Your task to perform on an android device: turn off location history Image 0: 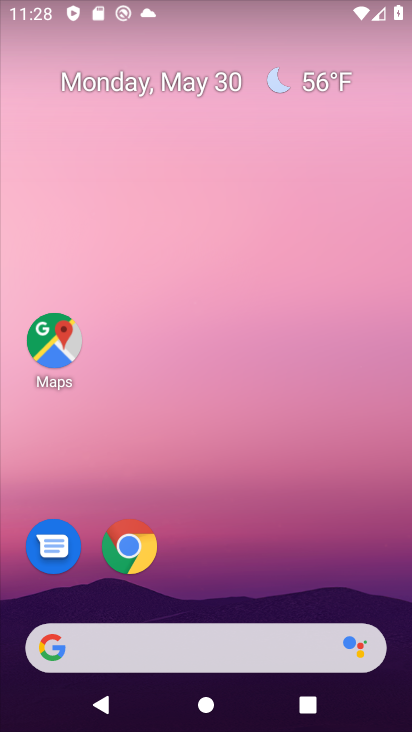
Step 0: drag from (265, 555) to (257, 128)
Your task to perform on an android device: turn off location history Image 1: 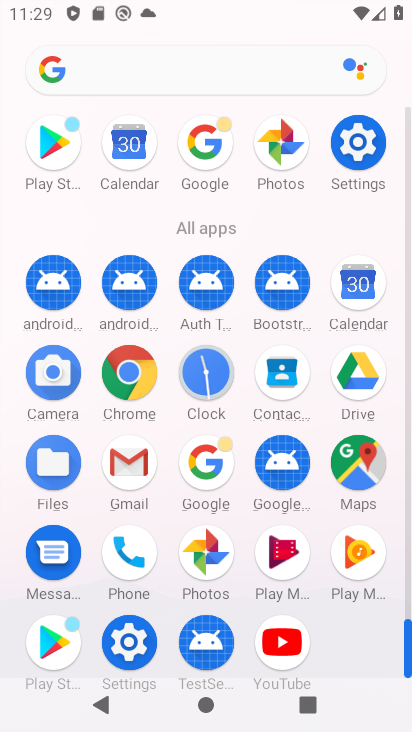
Step 1: click (360, 143)
Your task to perform on an android device: turn off location history Image 2: 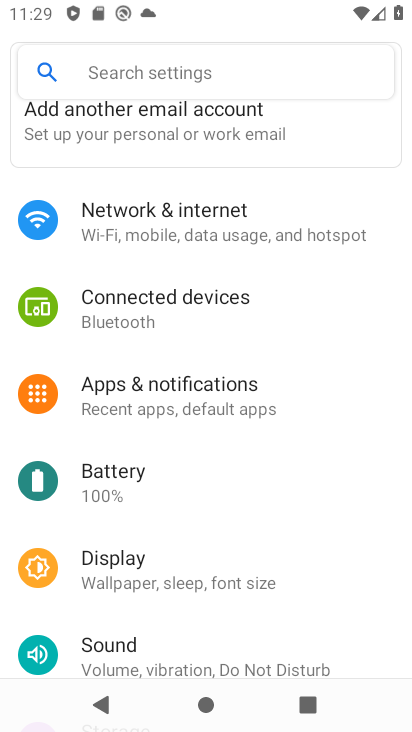
Step 2: drag from (188, 562) to (171, 360)
Your task to perform on an android device: turn off location history Image 3: 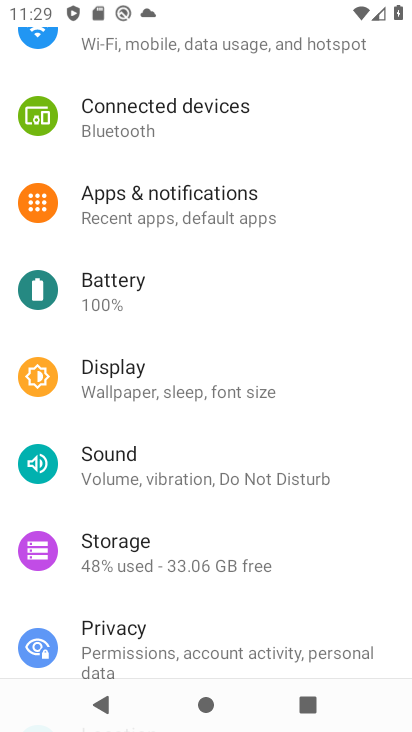
Step 3: drag from (186, 521) to (192, 373)
Your task to perform on an android device: turn off location history Image 4: 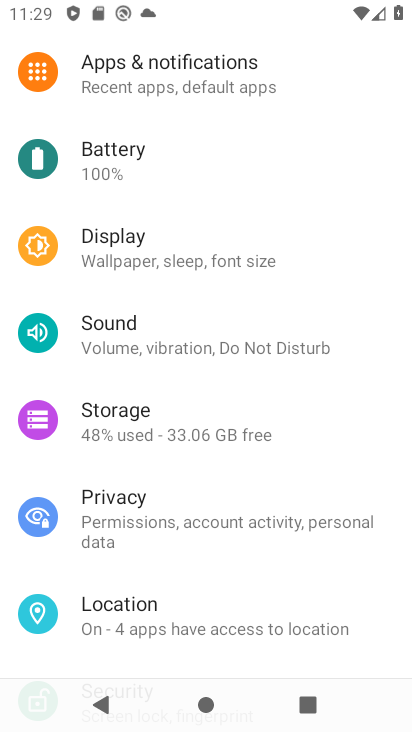
Step 4: drag from (170, 489) to (214, 369)
Your task to perform on an android device: turn off location history Image 5: 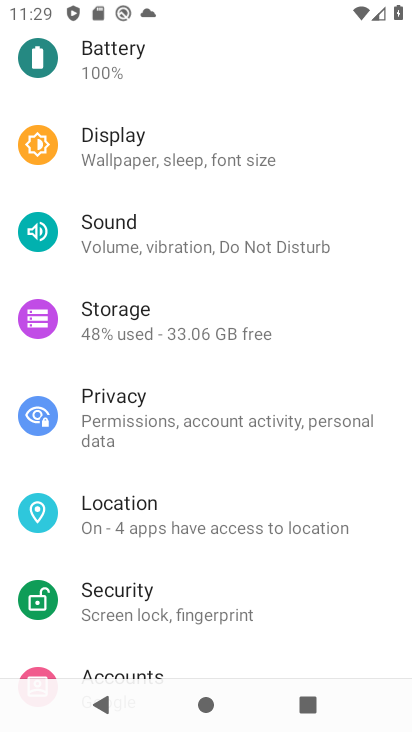
Step 5: click (207, 513)
Your task to perform on an android device: turn off location history Image 6: 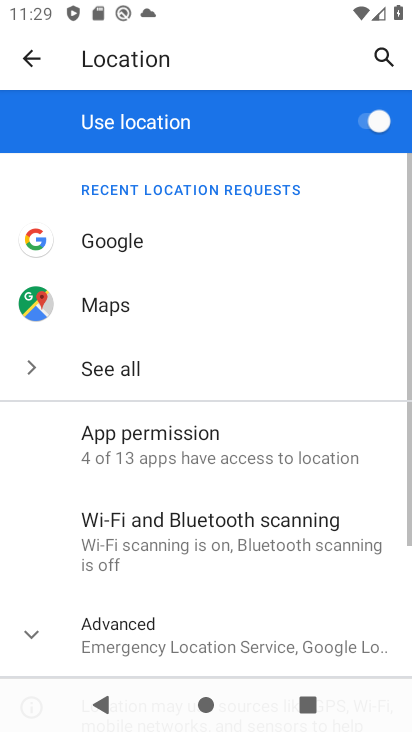
Step 6: drag from (185, 574) to (245, 465)
Your task to perform on an android device: turn off location history Image 7: 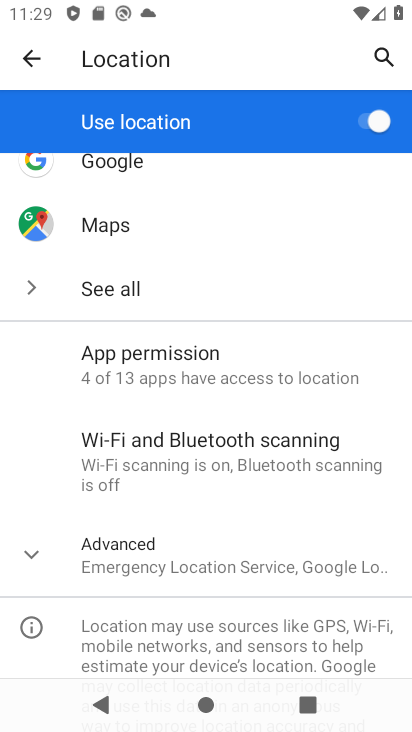
Step 7: click (206, 568)
Your task to perform on an android device: turn off location history Image 8: 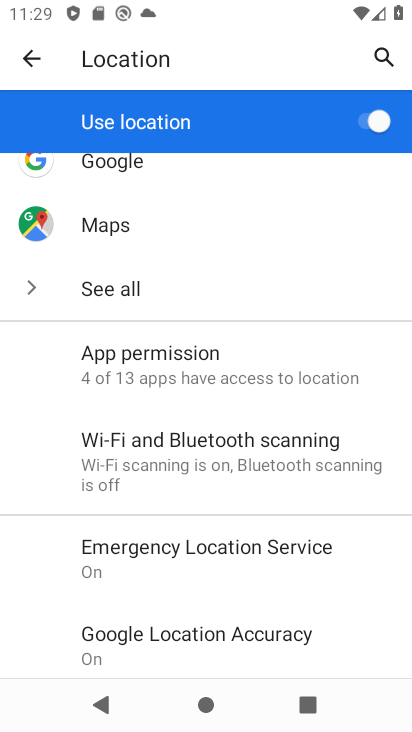
Step 8: drag from (171, 639) to (227, 516)
Your task to perform on an android device: turn off location history Image 9: 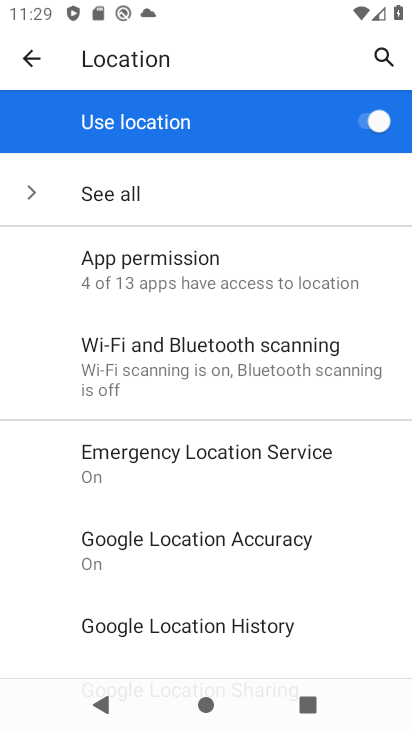
Step 9: drag from (206, 586) to (264, 482)
Your task to perform on an android device: turn off location history Image 10: 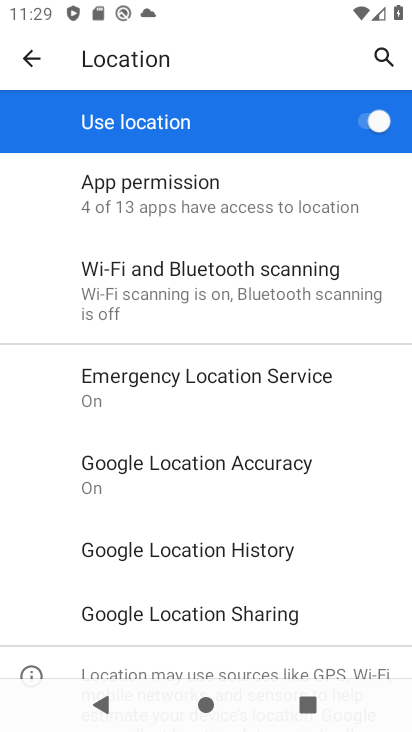
Step 10: click (247, 554)
Your task to perform on an android device: turn off location history Image 11: 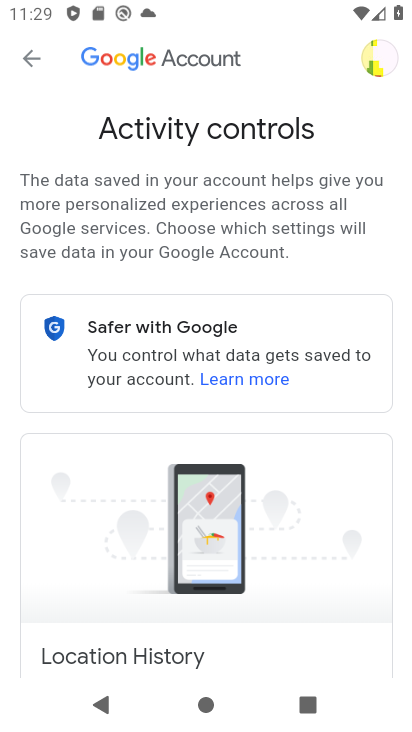
Step 11: drag from (112, 553) to (165, 421)
Your task to perform on an android device: turn off location history Image 12: 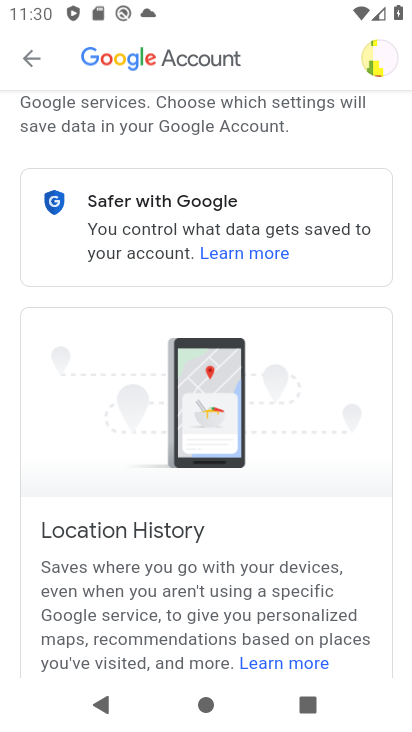
Step 12: drag from (140, 598) to (211, 472)
Your task to perform on an android device: turn off location history Image 13: 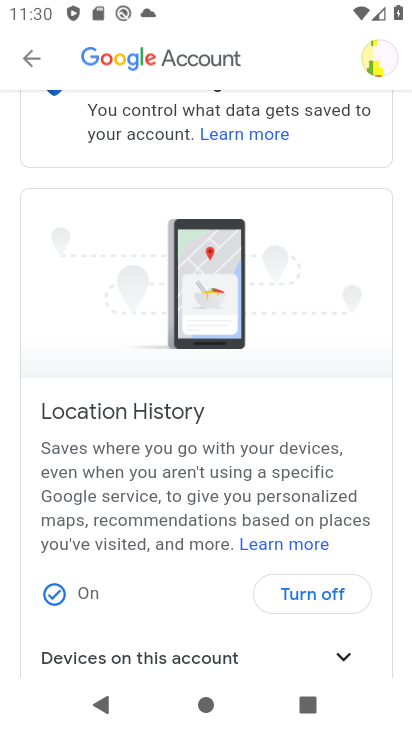
Step 13: click (311, 593)
Your task to perform on an android device: turn off location history Image 14: 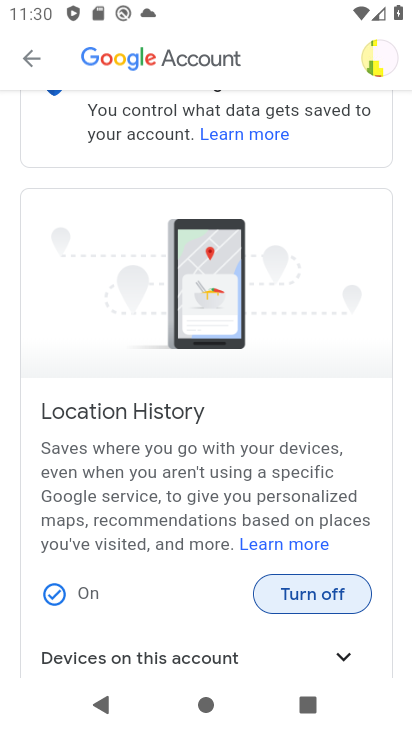
Step 14: click (311, 593)
Your task to perform on an android device: turn off location history Image 15: 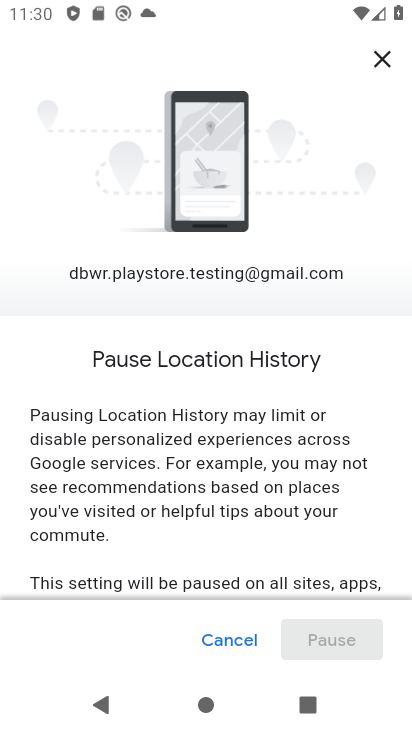
Step 15: drag from (154, 509) to (215, 372)
Your task to perform on an android device: turn off location history Image 16: 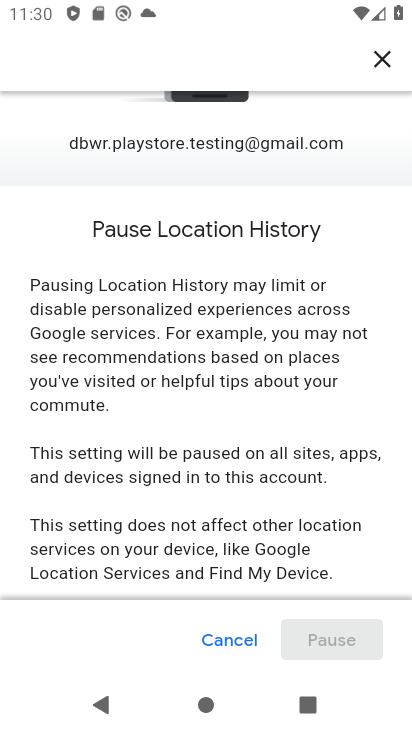
Step 16: drag from (155, 534) to (203, 440)
Your task to perform on an android device: turn off location history Image 17: 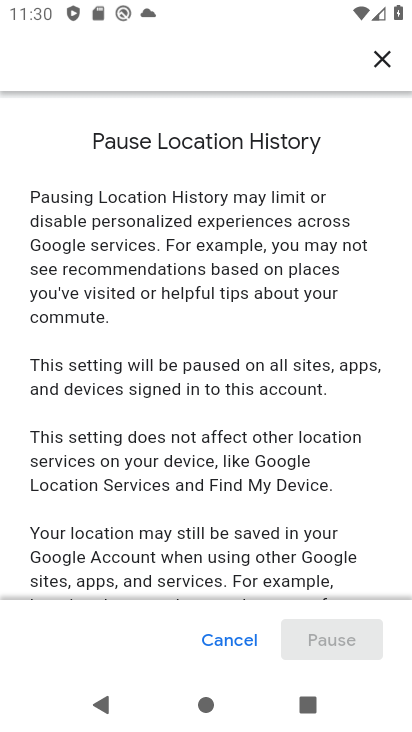
Step 17: drag from (186, 535) to (275, 414)
Your task to perform on an android device: turn off location history Image 18: 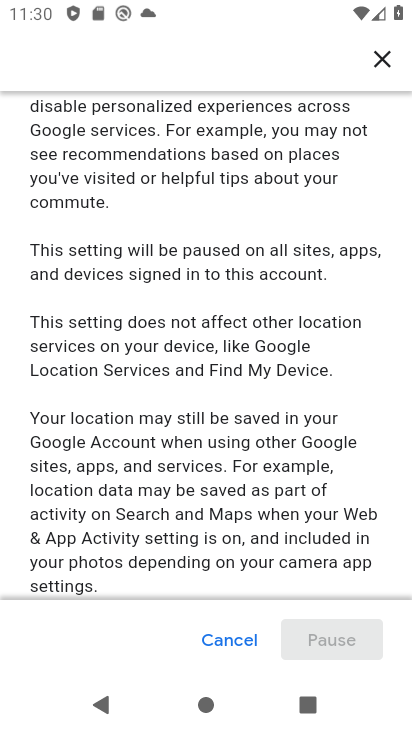
Step 18: drag from (210, 502) to (297, 392)
Your task to perform on an android device: turn off location history Image 19: 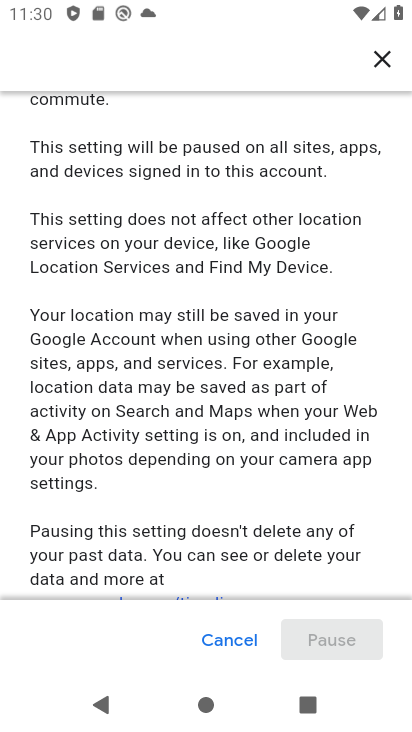
Step 19: drag from (205, 508) to (250, 419)
Your task to perform on an android device: turn off location history Image 20: 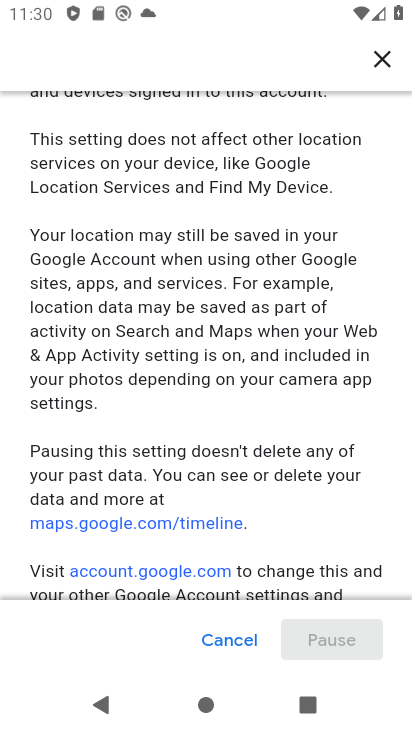
Step 20: drag from (256, 545) to (305, 443)
Your task to perform on an android device: turn off location history Image 21: 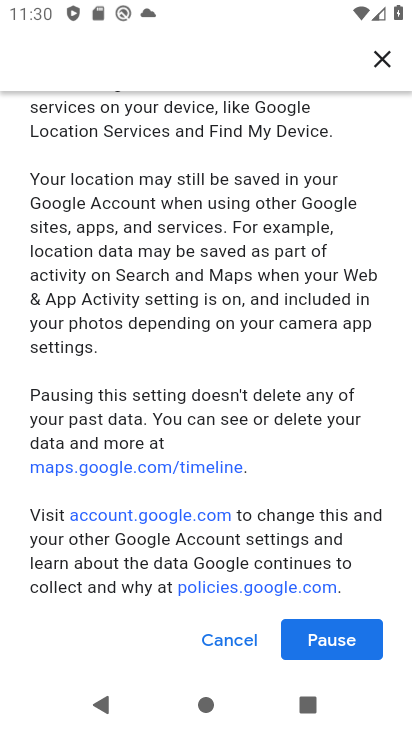
Step 21: click (327, 640)
Your task to perform on an android device: turn off location history Image 22: 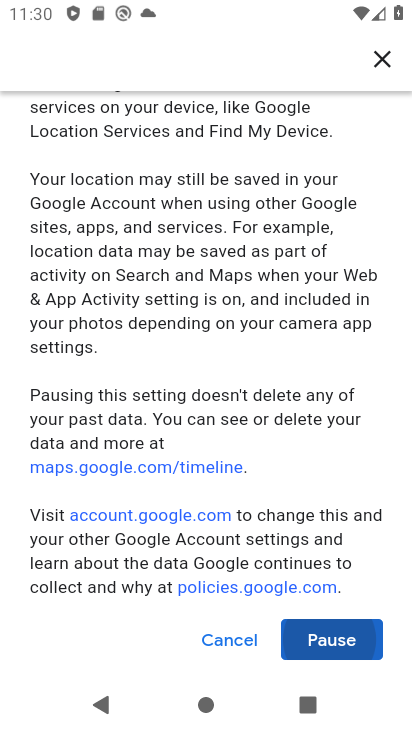
Step 22: click (327, 640)
Your task to perform on an android device: turn off location history Image 23: 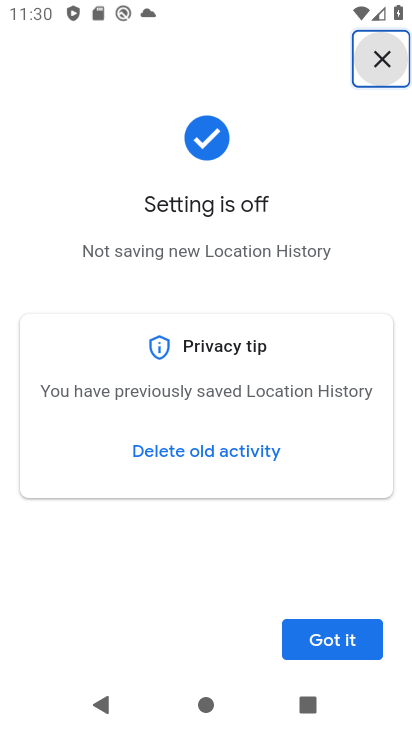
Step 23: click (331, 643)
Your task to perform on an android device: turn off location history Image 24: 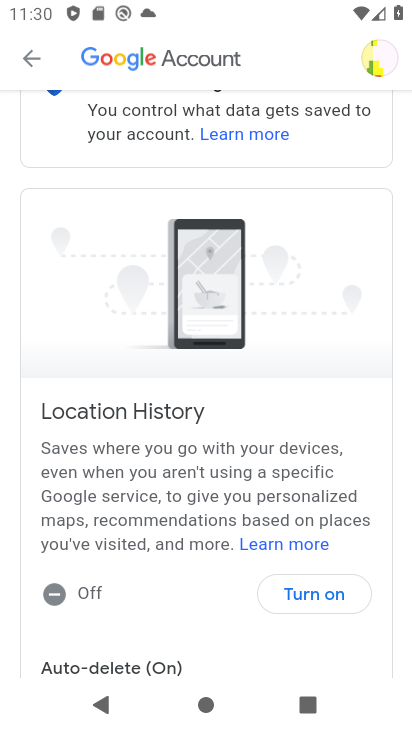
Step 24: task complete